Your task to perform on an android device: Open Reddit.com Image 0: 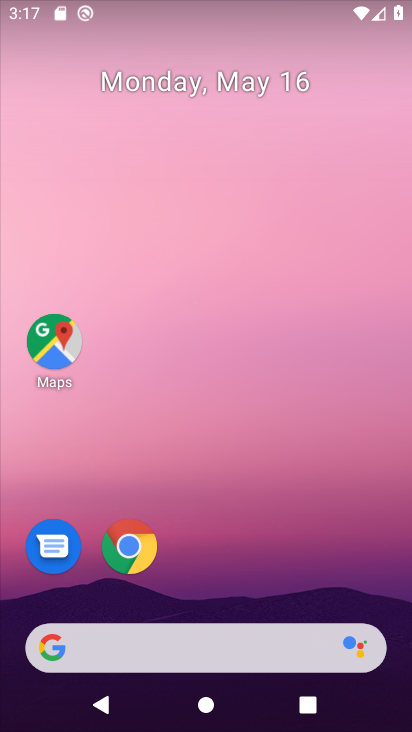
Step 0: drag from (384, 584) to (369, 115)
Your task to perform on an android device: Open Reddit.com Image 1: 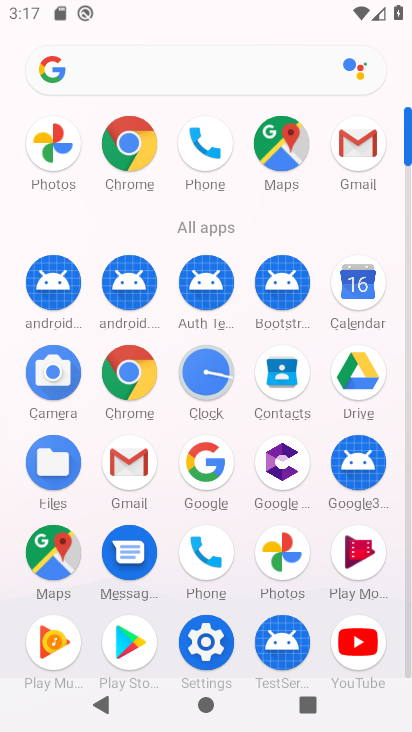
Step 1: click (132, 387)
Your task to perform on an android device: Open Reddit.com Image 2: 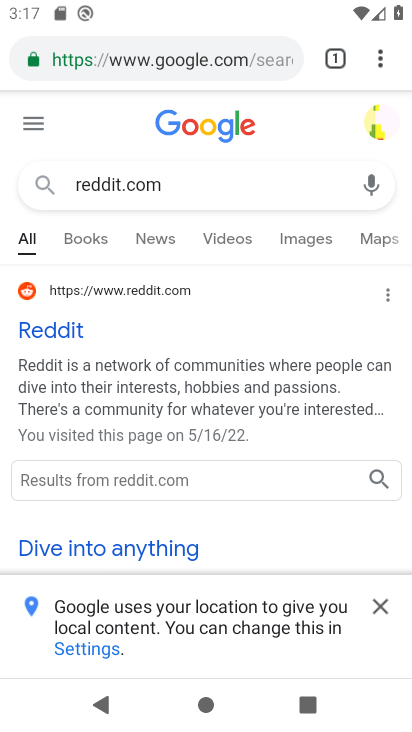
Step 2: task complete